Your task to perform on an android device: turn on javascript in the chrome app Image 0: 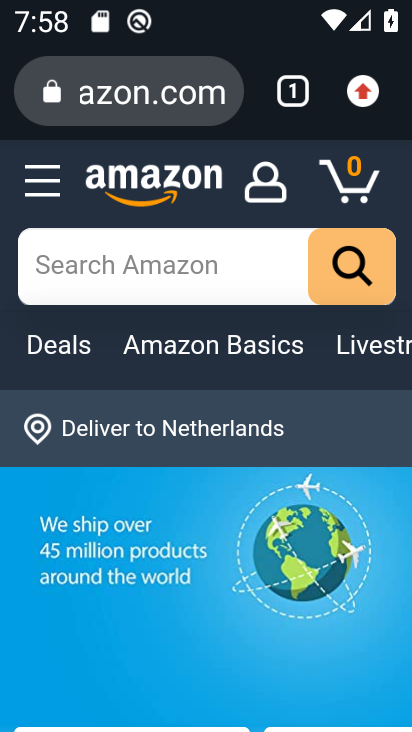
Step 0: click (369, 90)
Your task to perform on an android device: turn on javascript in the chrome app Image 1: 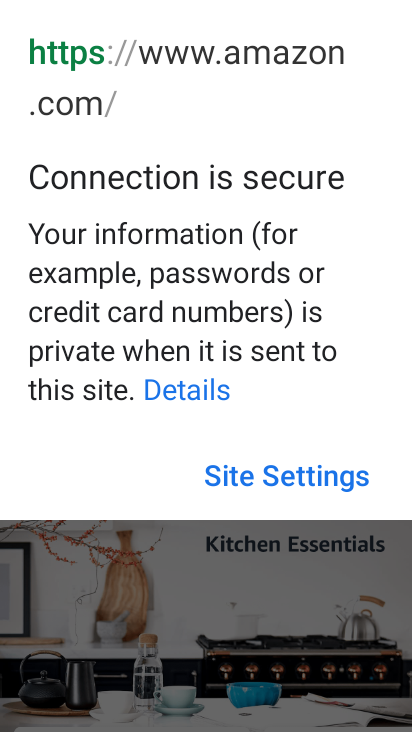
Step 1: click (285, 527)
Your task to perform on an android device: turn on javascript in the chrome app Image 2: 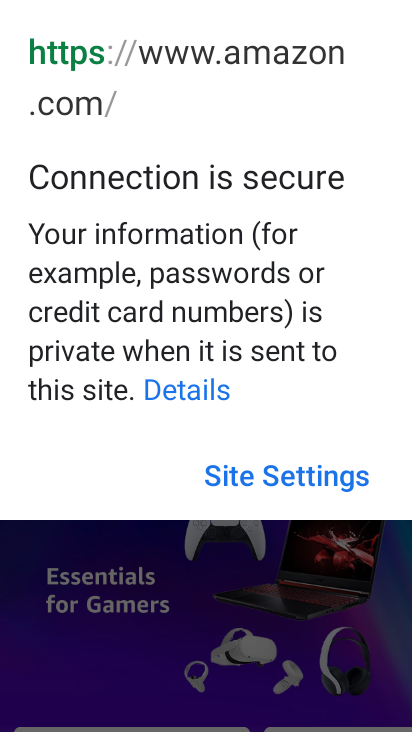
Step 2: click (296, 490)
Your task to perform on an android device: turn on javascript in the chrome app Image 3: 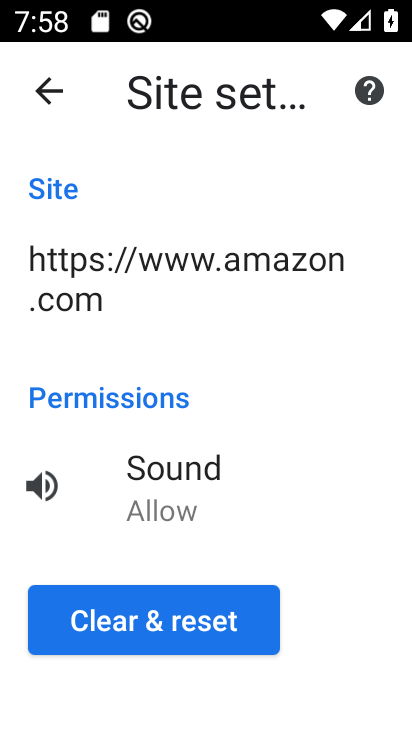
Step 3: drag from (214, 501) to (262, 113)
Your task to perform on an android device: turn on javascript in the chrome app Image 4: 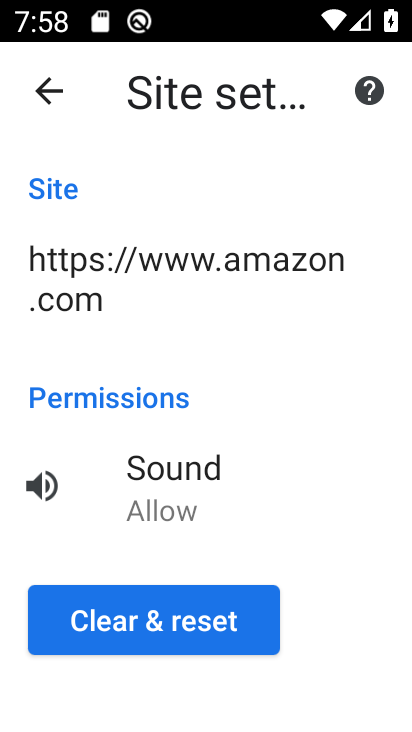
Step 4: click (142, 606)
Your task to perform on an android device: turn on javascript in the chrome app Image 5: 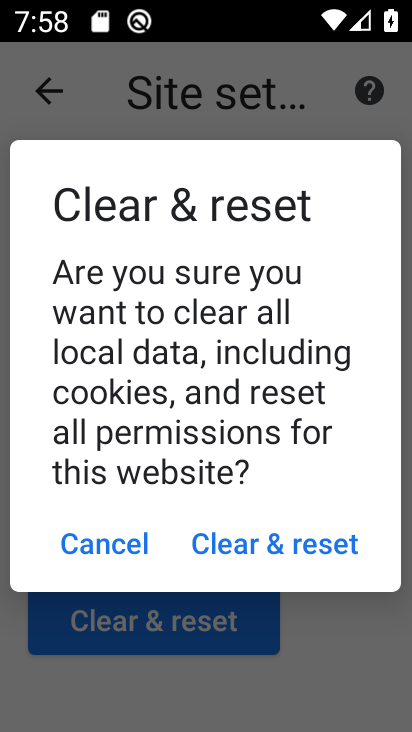
Step 5: click (262, 528)
Your task to perform on an android device: turn on javascript in the chrome app Image 6: 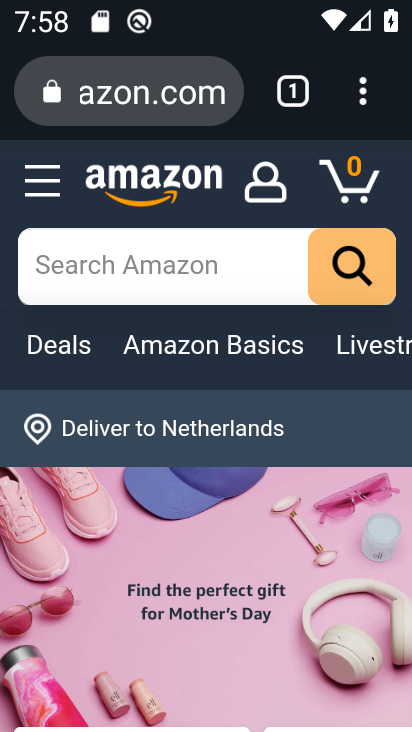
Step 6: click (376, 100)
Your task to perform on an android device: turn on javascript in the chrome app Image 7: 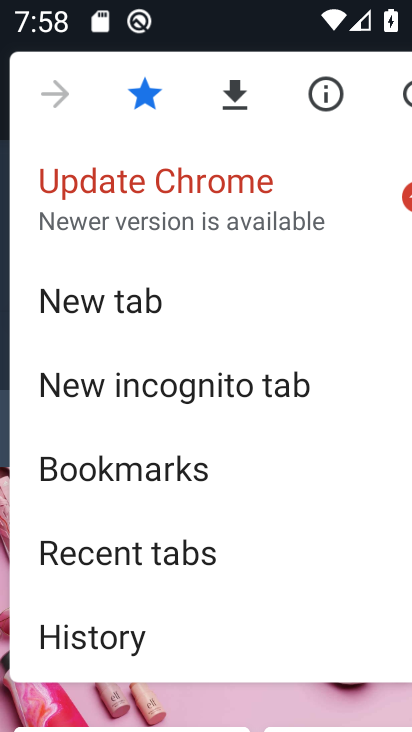
Step 7: drag from (164, 506) to (194, 240)
Your task to perform on an android device: turn on javascript in the chrome app Image 8: 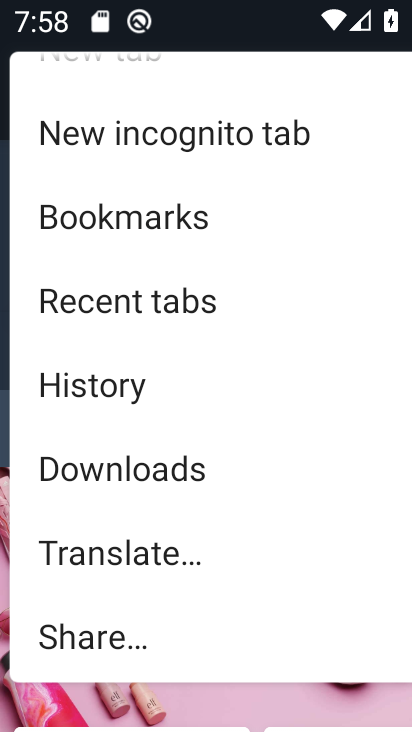
Step 8: drag from (130, 616) to (255, 188)
Your task to perform on an android device: turn on javascript in the chrome app Image 9: 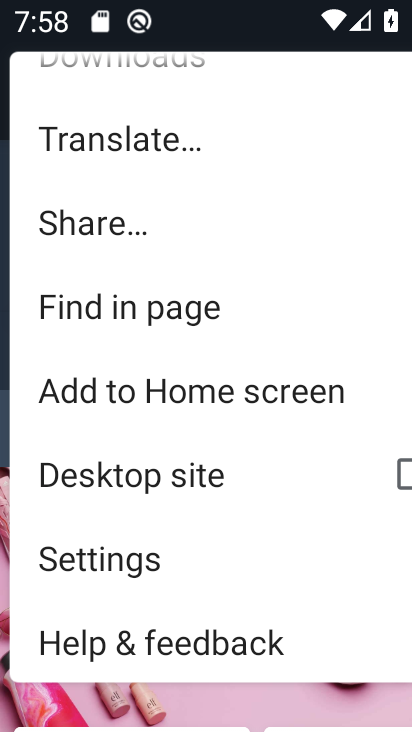
Step 9: click (106, 568)
Your task to perform on an android device: turn on javascript in the chrome app Image 10: 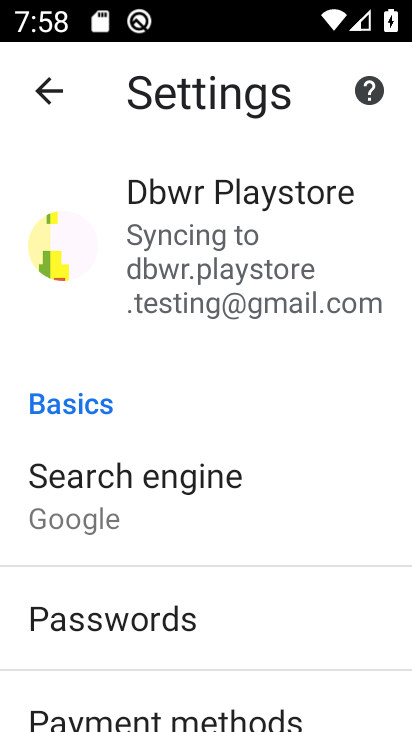
Step 10: drag from (90, 611) to (166, 265)
Your task to perform on an android device: turn on javascript in the chrome app Image 11: 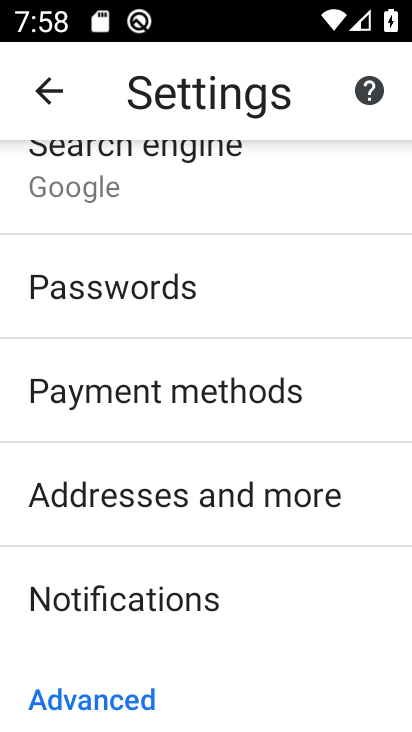
Step 11: drag from (147, 574) to (221, 238)
Your task to perform on an android device: turn on javascript in the chrome app Image 12: 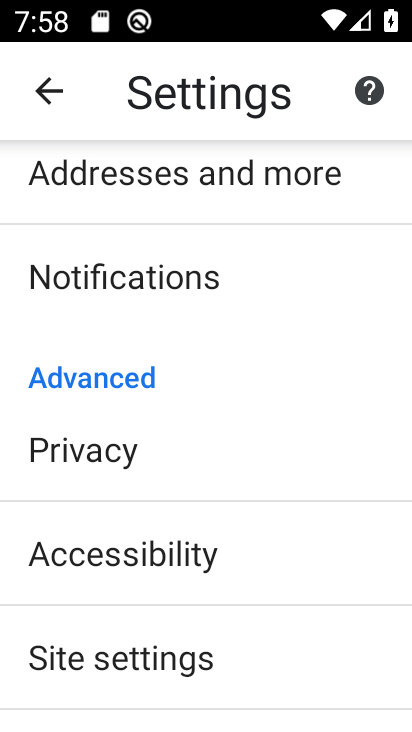
Step 12: click (127, 653)
Your task to perform on an android device: turn on javascript in the chrome app Image 13: 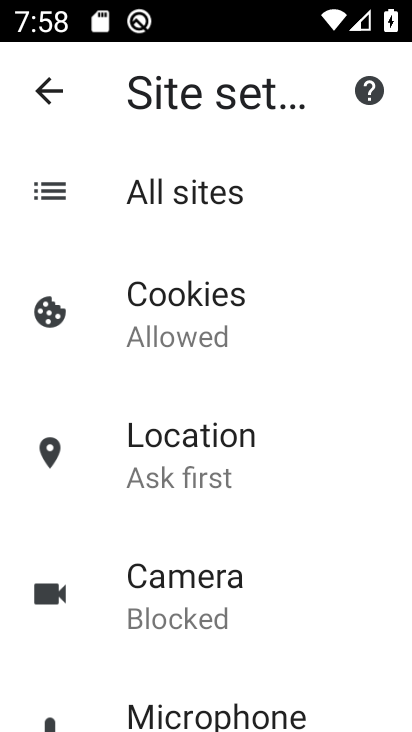
Step 13: drag from (194, 598) to (252, 229)
Your task to perform on an android device: turn on javascript in the chrome app Image 14: 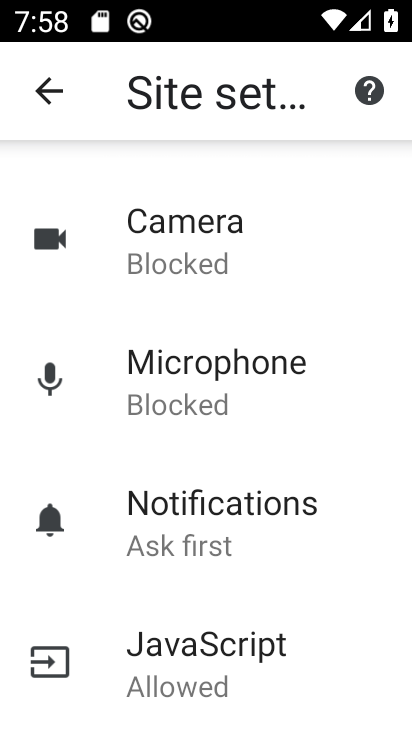
Step 14: click (162, 656)
Your task to perform on an android device: turn on javascript in the chrome app Image 15: 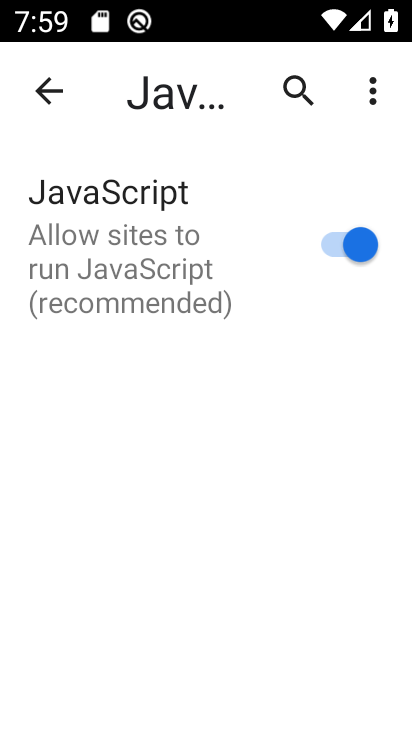
Step 15: task complete